Your task to perform on an android device: turn off airplane mode Image 0: 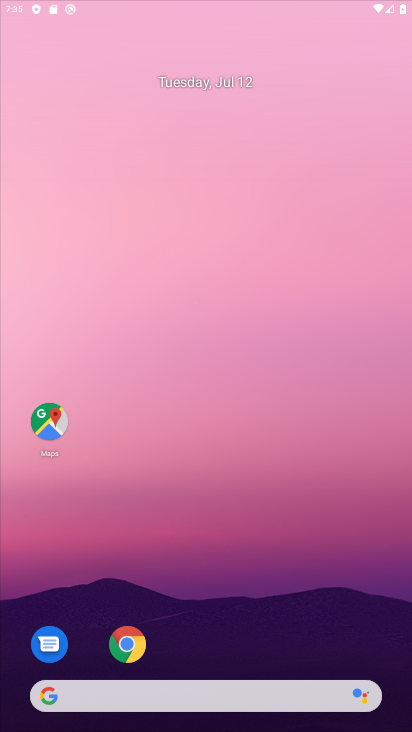
Step 0: click (313, 95)
Your task to perform on an android device: turn off airplane mode Image 1: 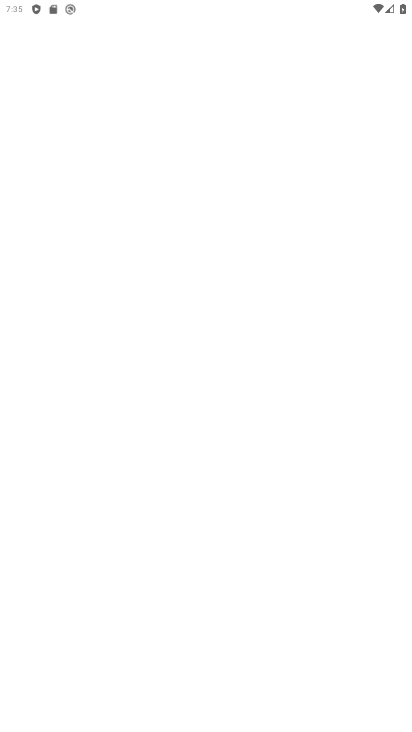
Step 1: drag from (224, 647) to (355, 101)
Your task to perform on an android device: turn off airplane mode Image 2: 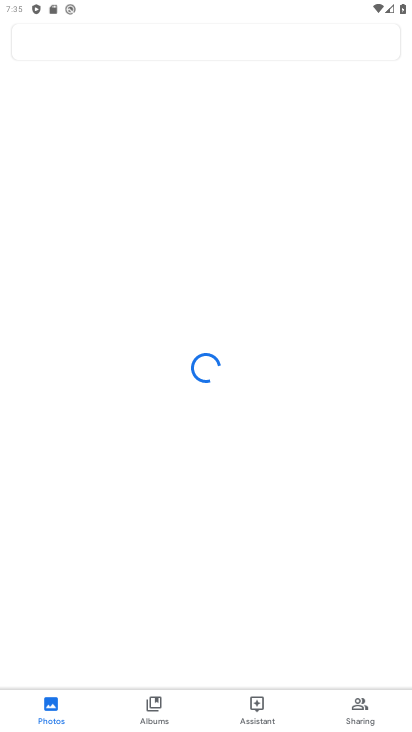
Step 2: press home button
Your task to perform on an android device: turn off airplane mode Image 3: 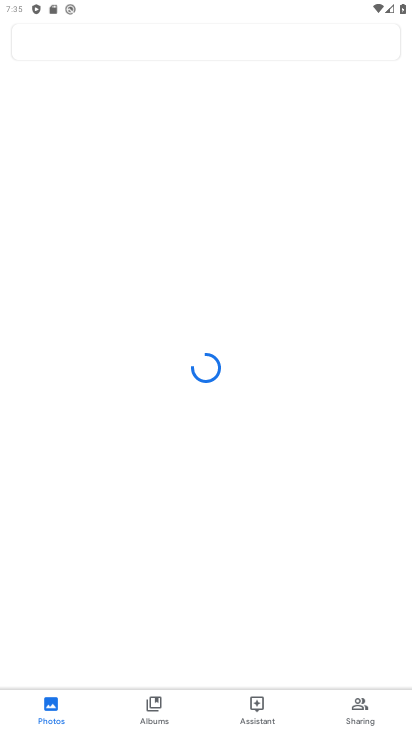
Step 3: drag from (220, 259) to (247, 171)
Your task to perform on an android device: turn off airplane mode Image 4: 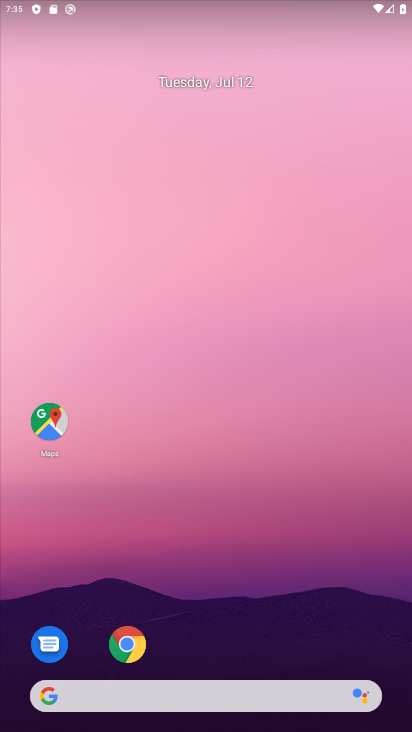
Step 4: drag from (192, 631) to (186, 73)
Your task to perform on an android device: turn off airplane mode Image 5: 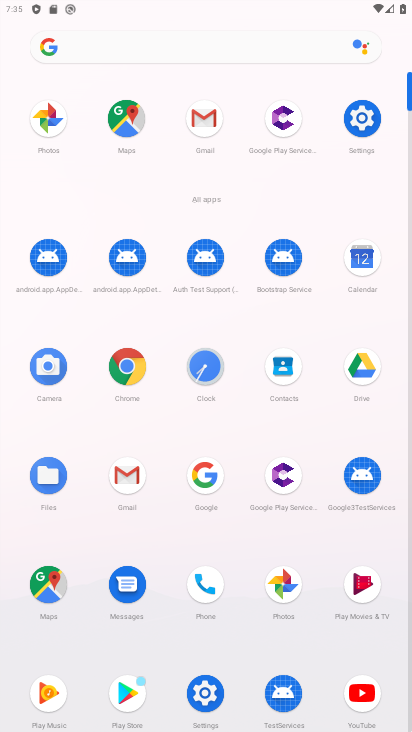
Step 5: click (361, 112)
Your task to perform on an android device: turn off airplane mode Image 6: 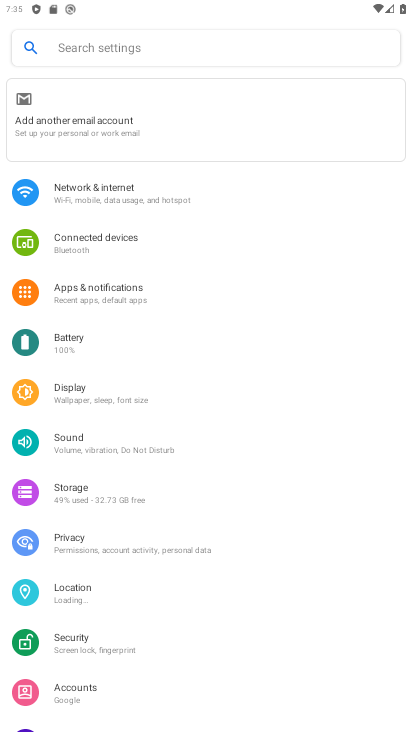
Step 6: click (110, 199)
Your task to perform on an android device: turn off airplane mode Image 7: 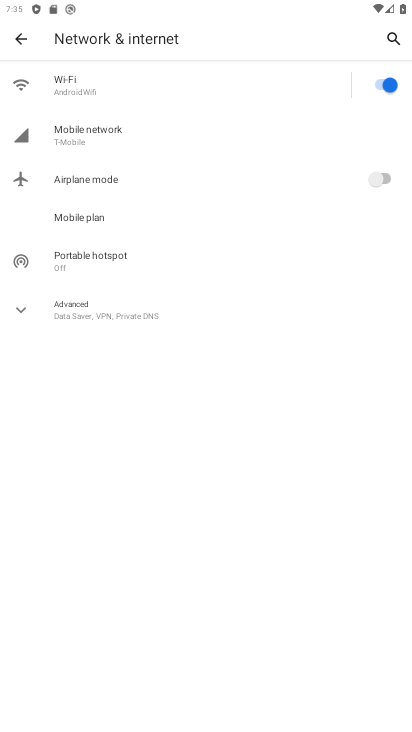
Step 7: click (82, 189)
Your task to perform on an android device: turn off airplane mode Image 8: 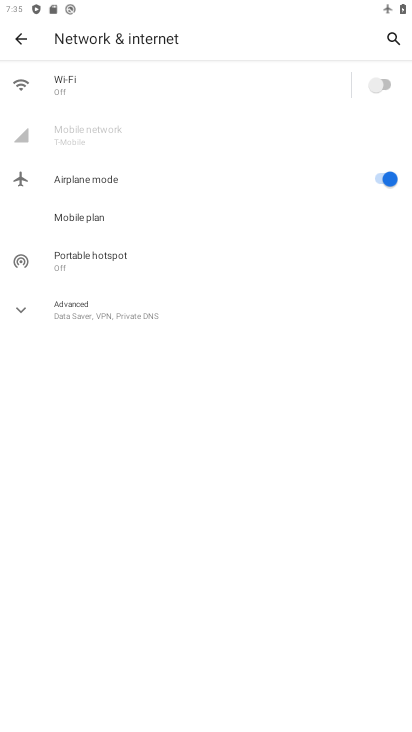
Step 8: drag from (233, 469) to (291, 175)
Your task to perform on an android device: turn off airplane mode Image 9: 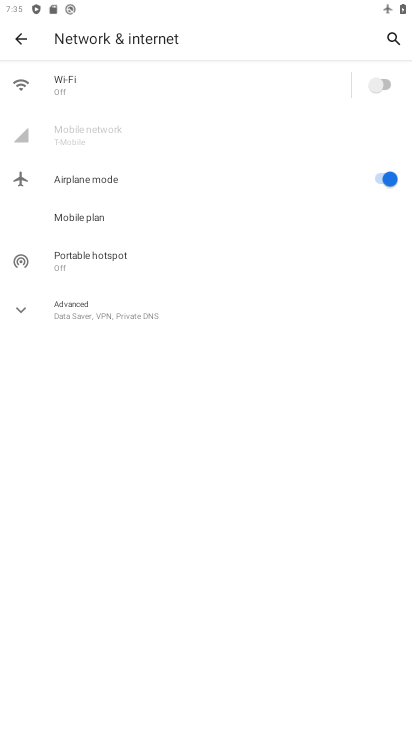
Step 9: click (395, 180)
Your task to perform on an android device: turn off airplane mode Image 10: 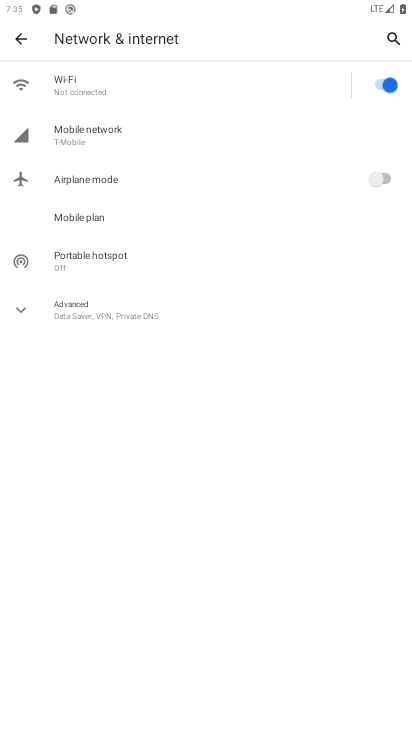
Step 10: task complete